Your task to perform on an android device: Open settings Image 0: 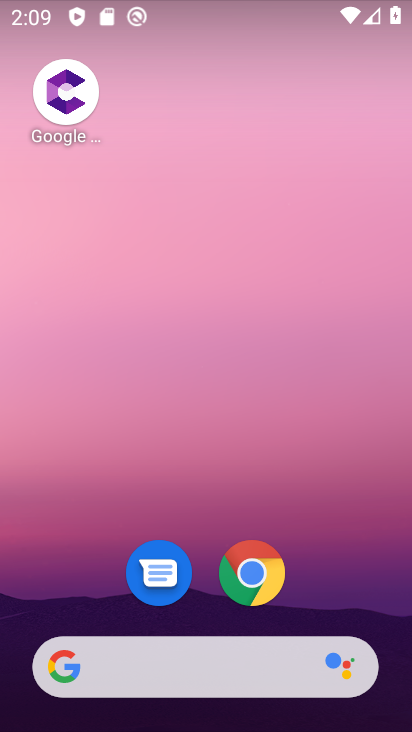
Step 0: drag from (328, 523) to (178, 15)
Your task to perform on an android device: Open settings Image 1: 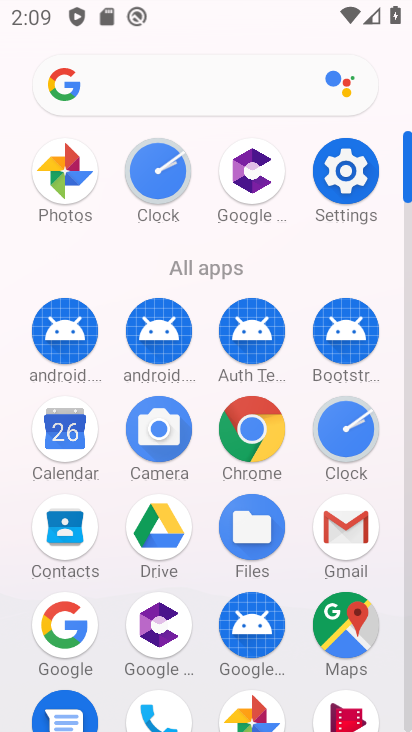
Step 1: drag from (11, 657) to (8, 301)
Your task to perform on an android device: Open settings Image 2: 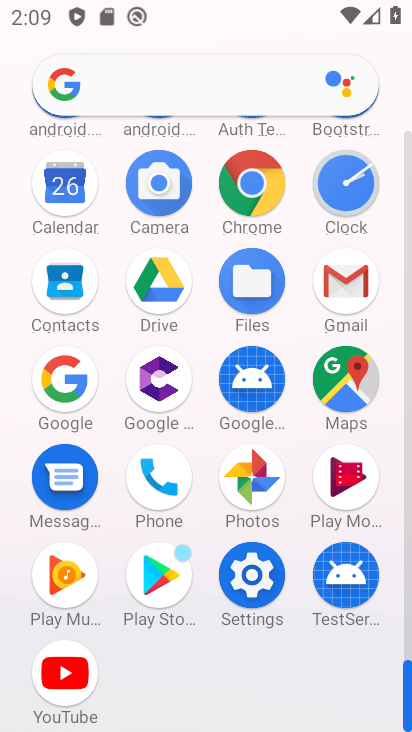
Step 2: click (249, 575)
Your task to perform on an android device: Open settings Image 3: 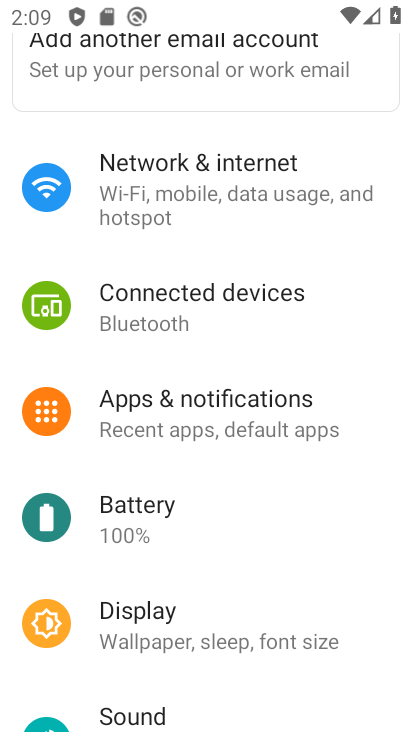
Step 3: task complete